Your task to perform on an android device: Open wifi settings Image 0: 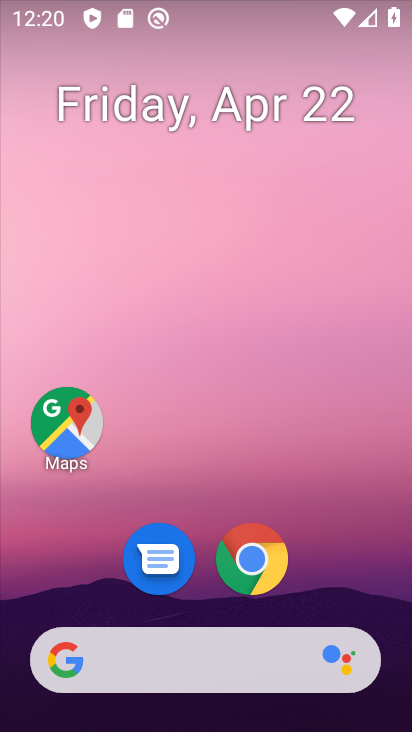
Step 0: drag from (344, 551) to (347, 125)
Your task to perform on an android device: Open wifi settings Image 1: 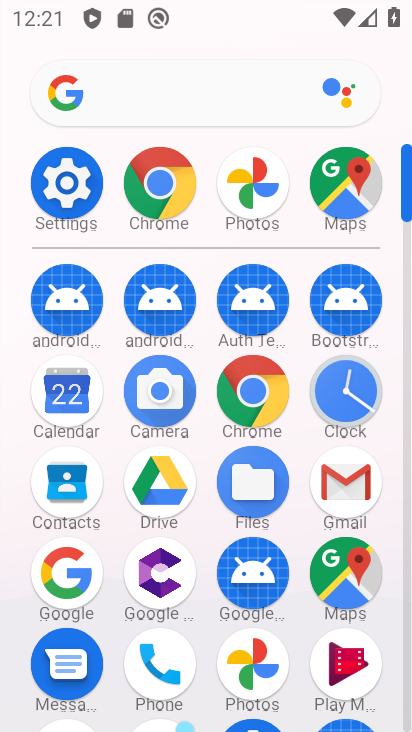
Step 1: click (78, 192)
Your task to perform on an android device: Open wifi settings Image 2: 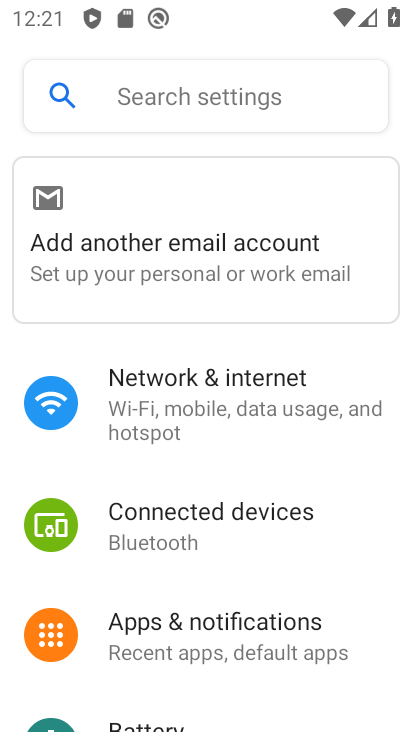
Step 2: drag from (350, 571) to (359, 421)
Your task to perform on an android device: Open wifi settings Image 3: 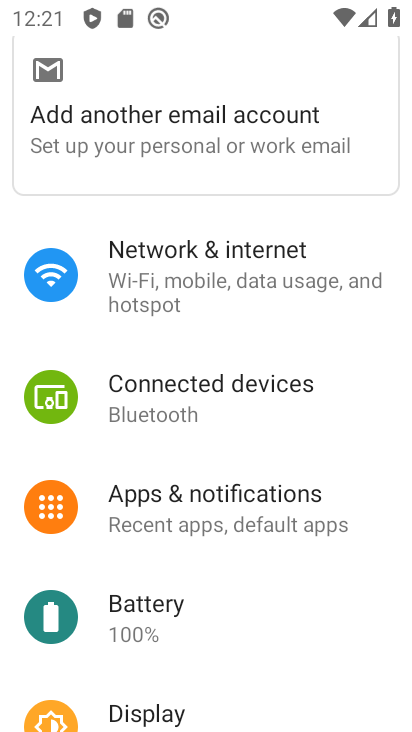
Step 3: drag from (360, 610) to (372, 414)
Your task to perform on an android device: Open wifi settings Image 4: 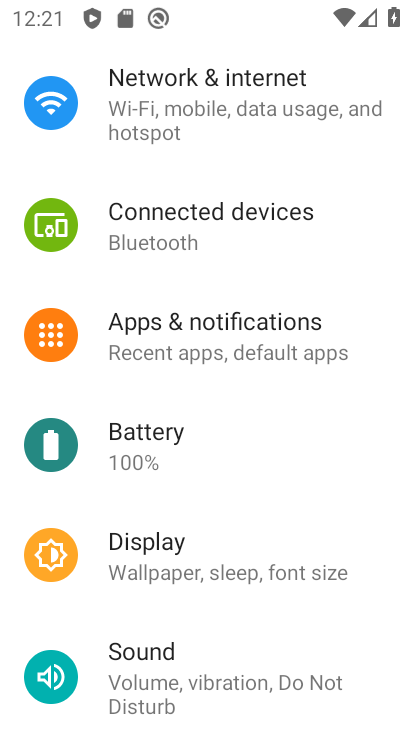
Step 4: drag from (372, 610) to (372, 366)
Your task to perform on an android device: Open wifi settings Image 5: 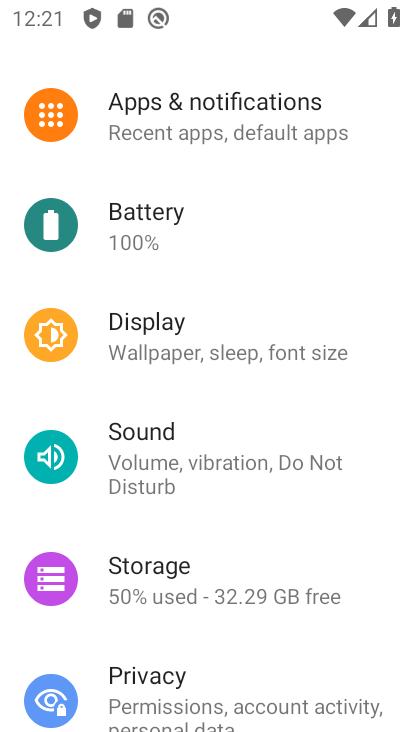
Step 5: drag from (373, 627) to (376, 444)
Your task to perform on an android device: Open wifi settings Image 6: 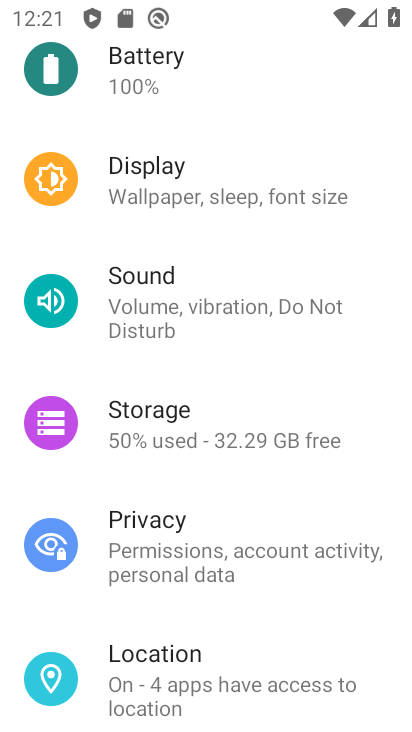
Step 6: drag from (374, 270) to (374, 466)
Your task to perform on an android device: Open wifi settings Image 7: 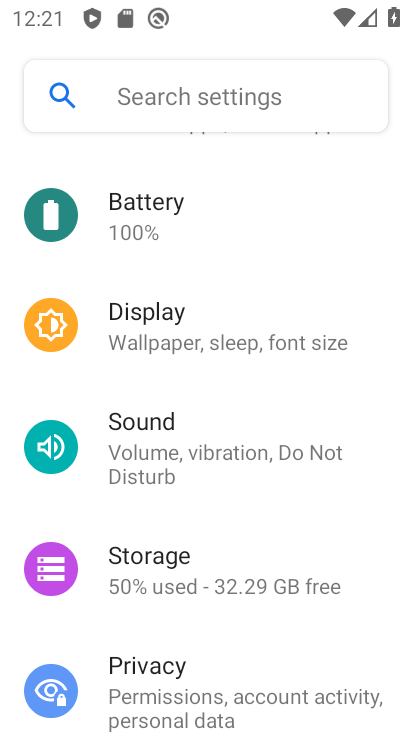
Step 7: drag from (365, 290) to (364, 471)
Your task to perform on an android device: Open wifi settings Image 8: 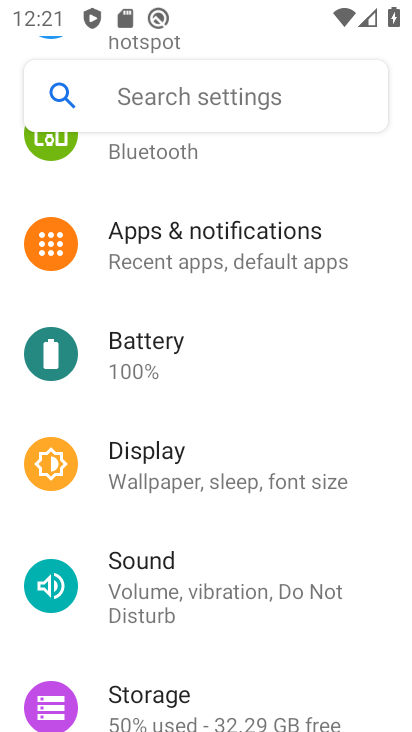
Step 8: drag from (370, 276) to (376, 439)
Your task to perform on an android device: Open wifi settings Image 9: 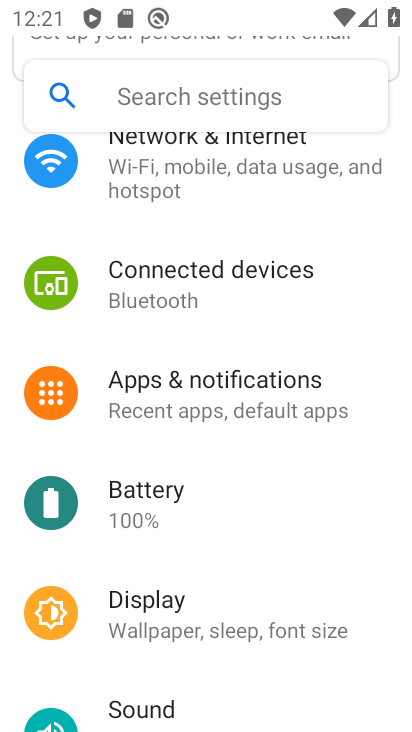
Step 9: drag from (366, 252) to (366, 429)
Your task to perform on an android device: Open wifi settings Image 10: 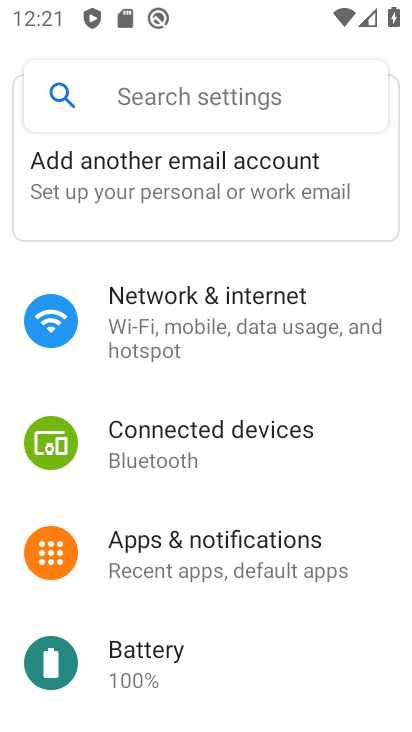
Step 10: click (244, 313)
Your task to perform on an android device: Open wifi settings Image 11: 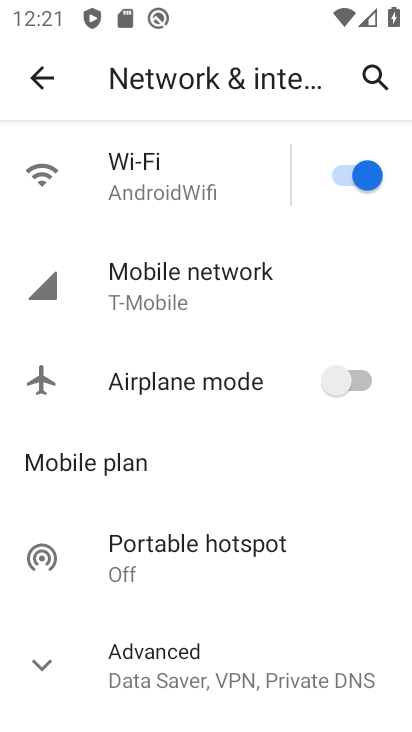
Step 11: click (180, 166)
Your task to perform on an android device: Open wifi settings Image 12: 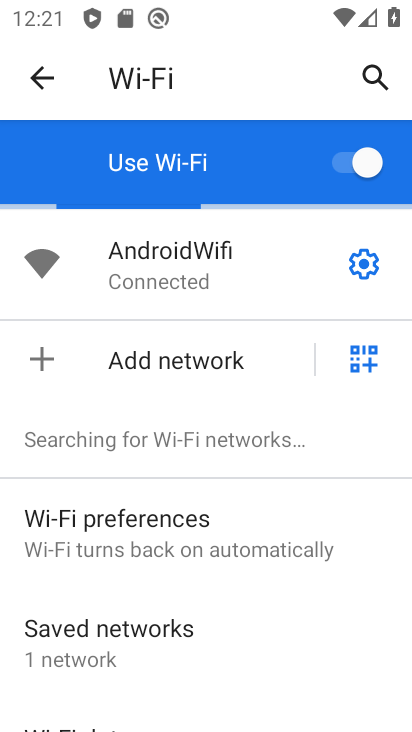
Step 12: task complete